Your task to perform on an android device: change keyboard looks Image 0: 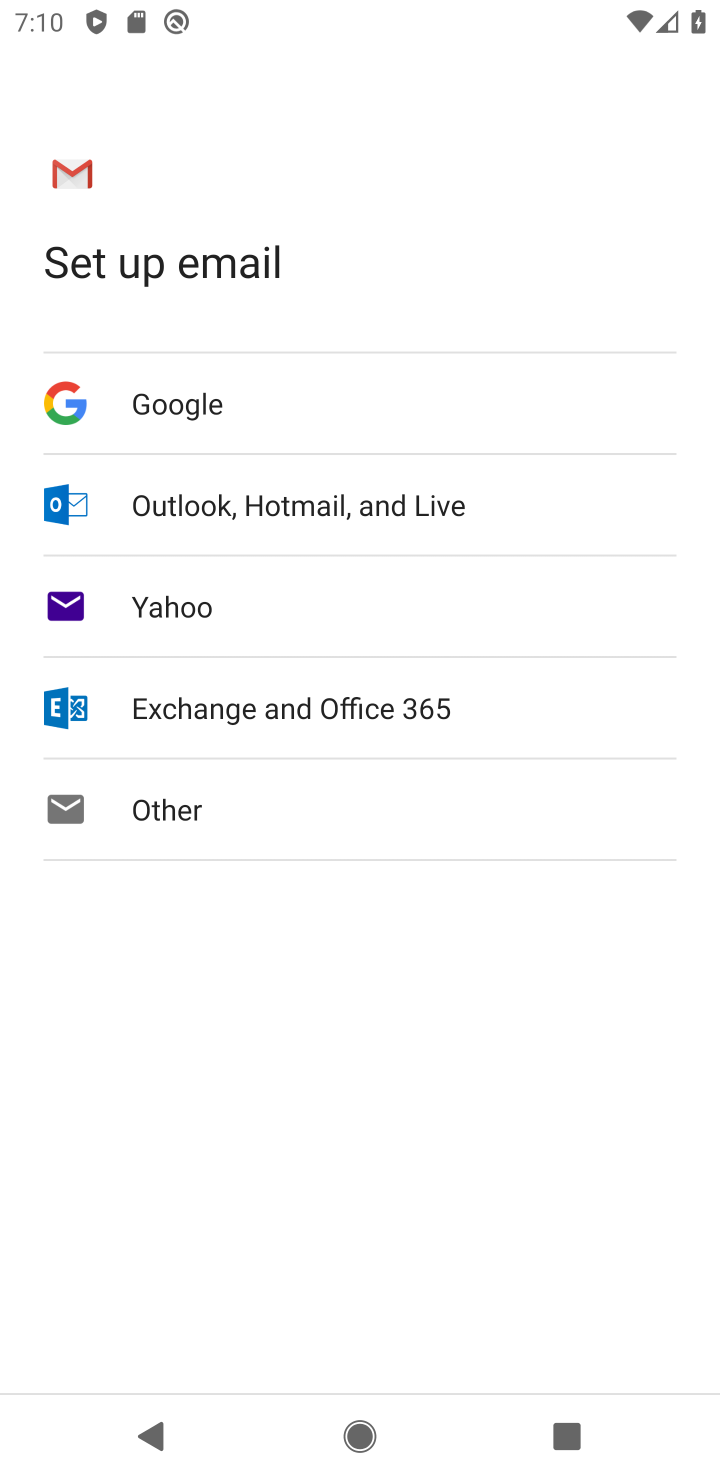
Step 0: press home button
Your task to perform on an android device: change keyboard looks Image 1: 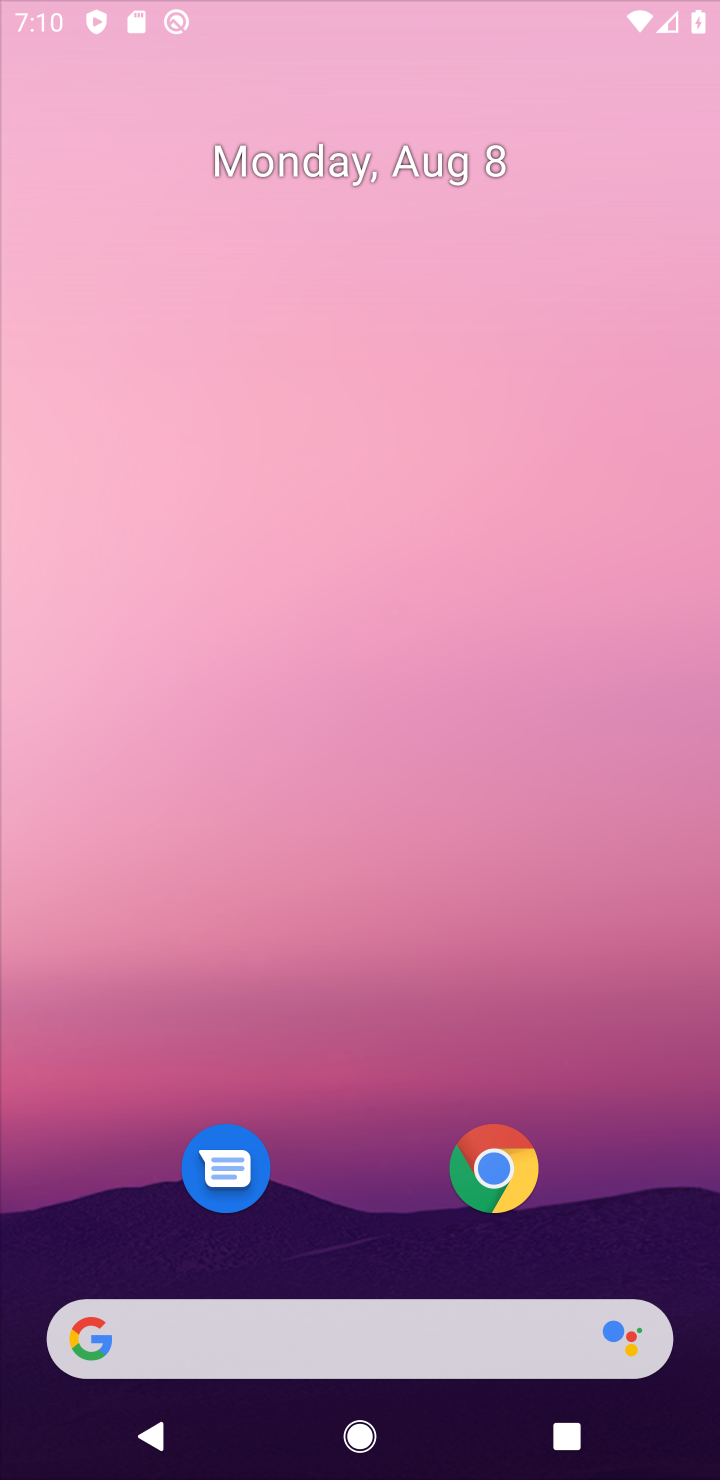
Step 1: drag from (653, 1277) to (414, 130)
Your task to perform on an android device: change keyboard looks Image 2: 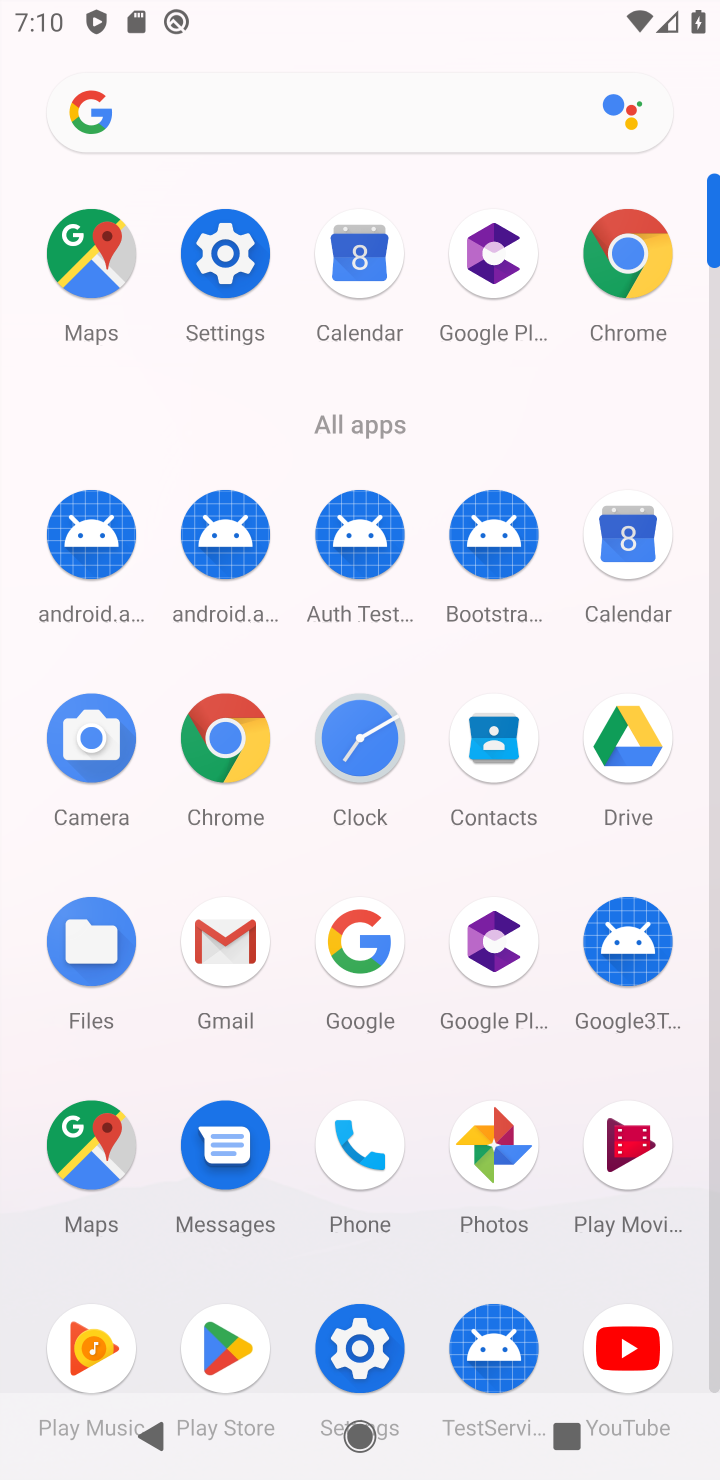
Step 2: click (361, 1330)
Your task to perform on an android device: change keyboard looks Image 3: 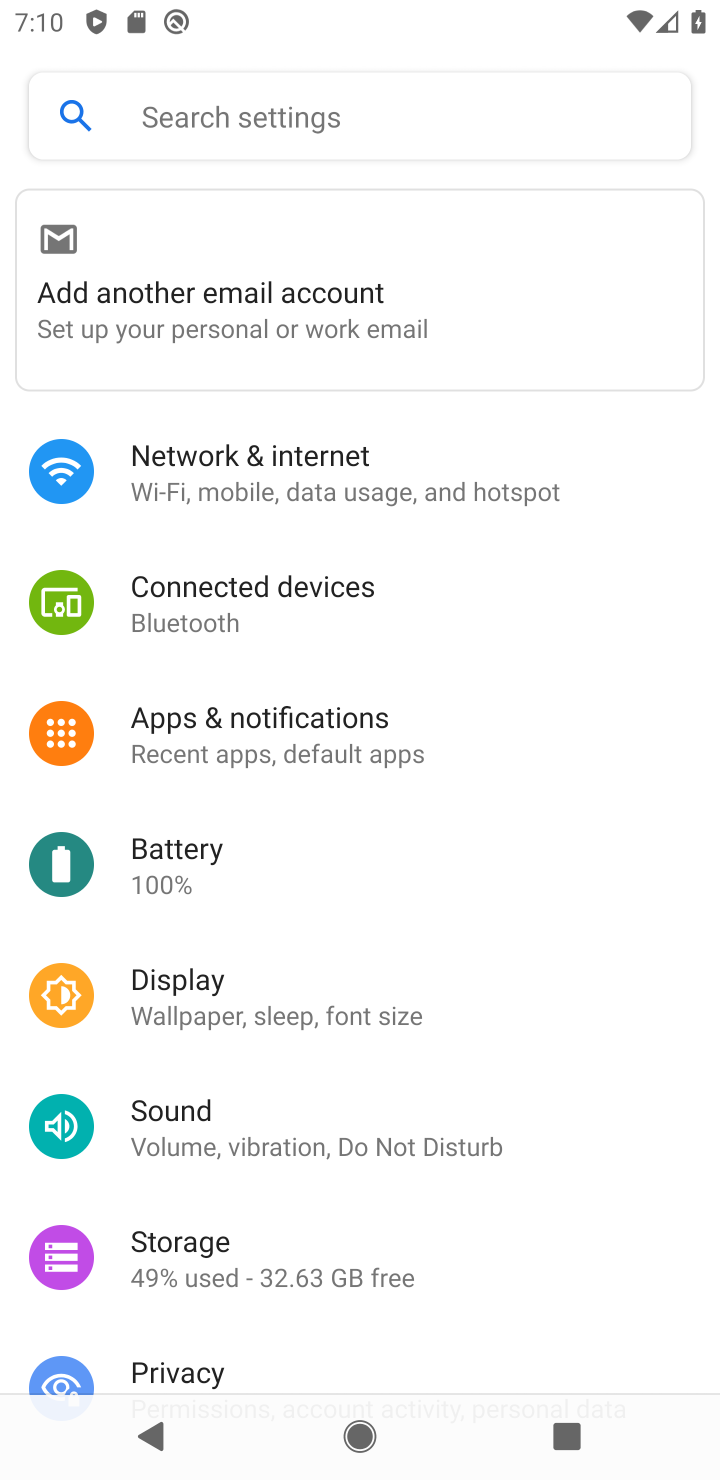
Step 3: drag from (363, 1270) to (386, 3)
Your task to perform on an android device: change keyboard looks Image 4: 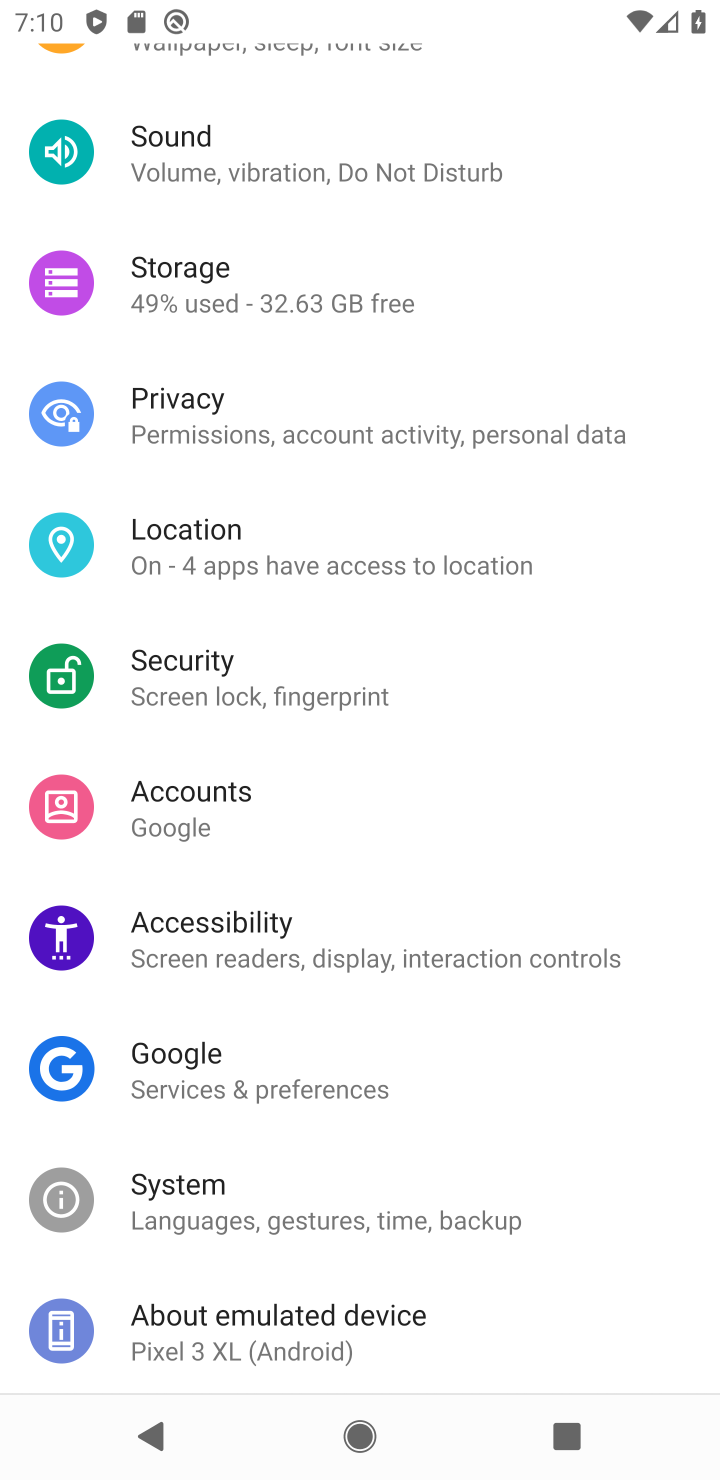
Step 4: click (207, 1214)
Your task to perform on an android device: change keyboard looks Image 5: 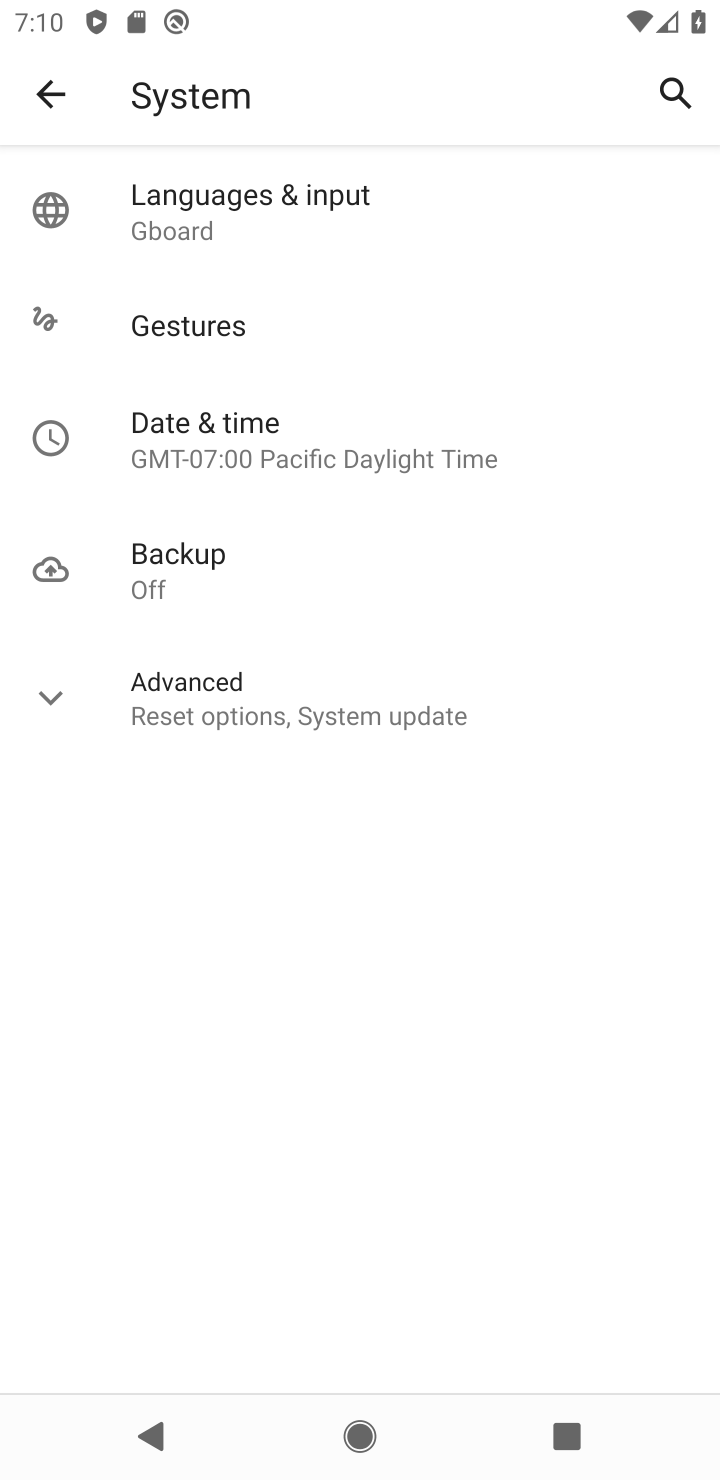
Step 5: click (224, 230)
Your task to perform on an android device: change keyboard looks Image 6: 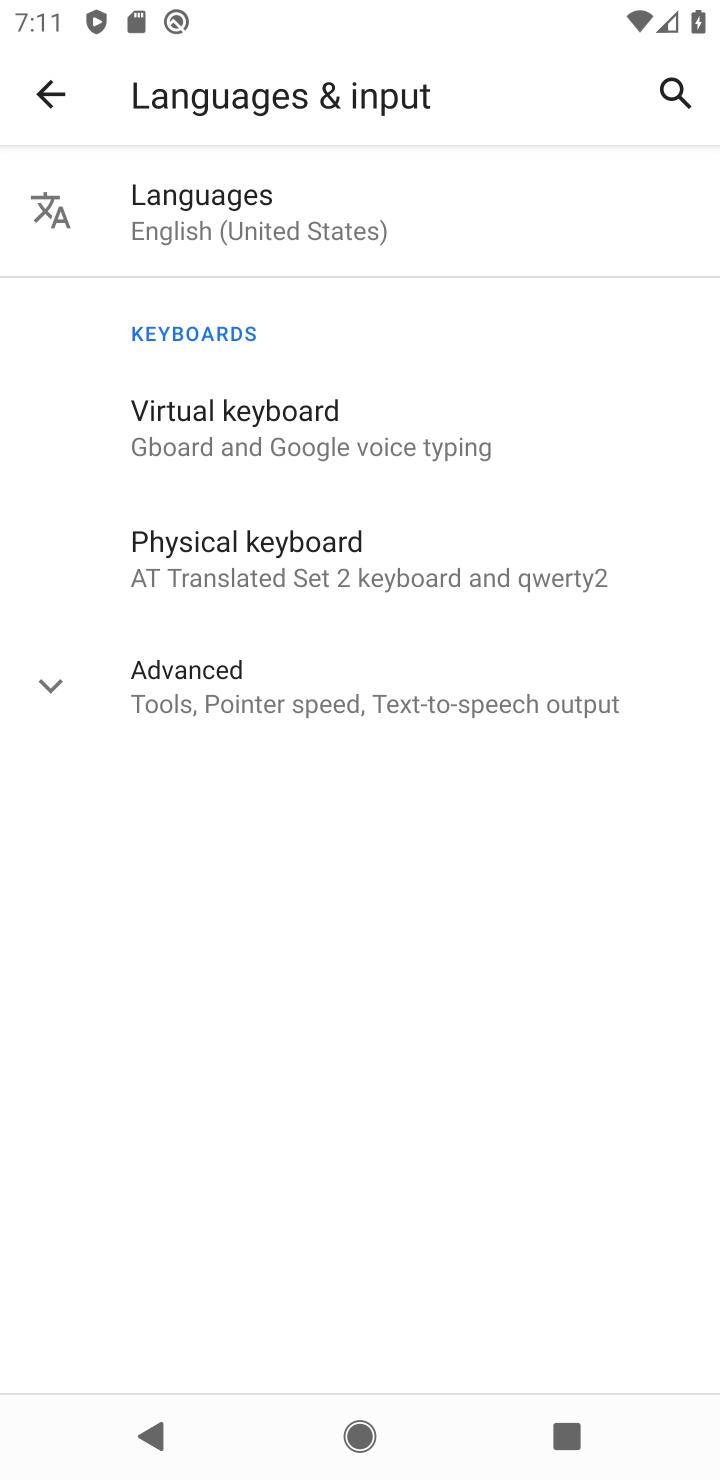
Step 6: drag from (201, 219) to (237, 435)
Your task to perform on an android device: change keyboard looks Image 7: 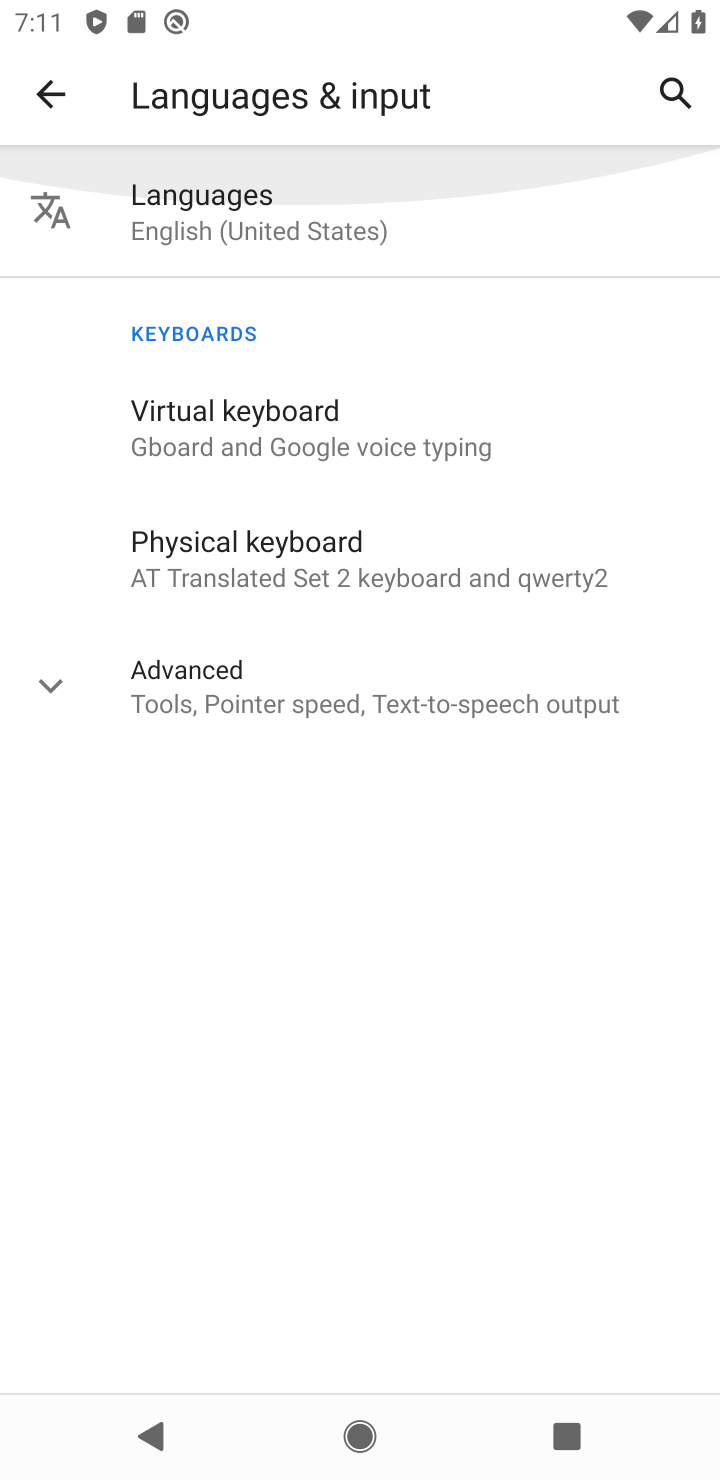
Step 7: click (237, 435)
Your task to perform on an android device: change keyboard looks Image 8: 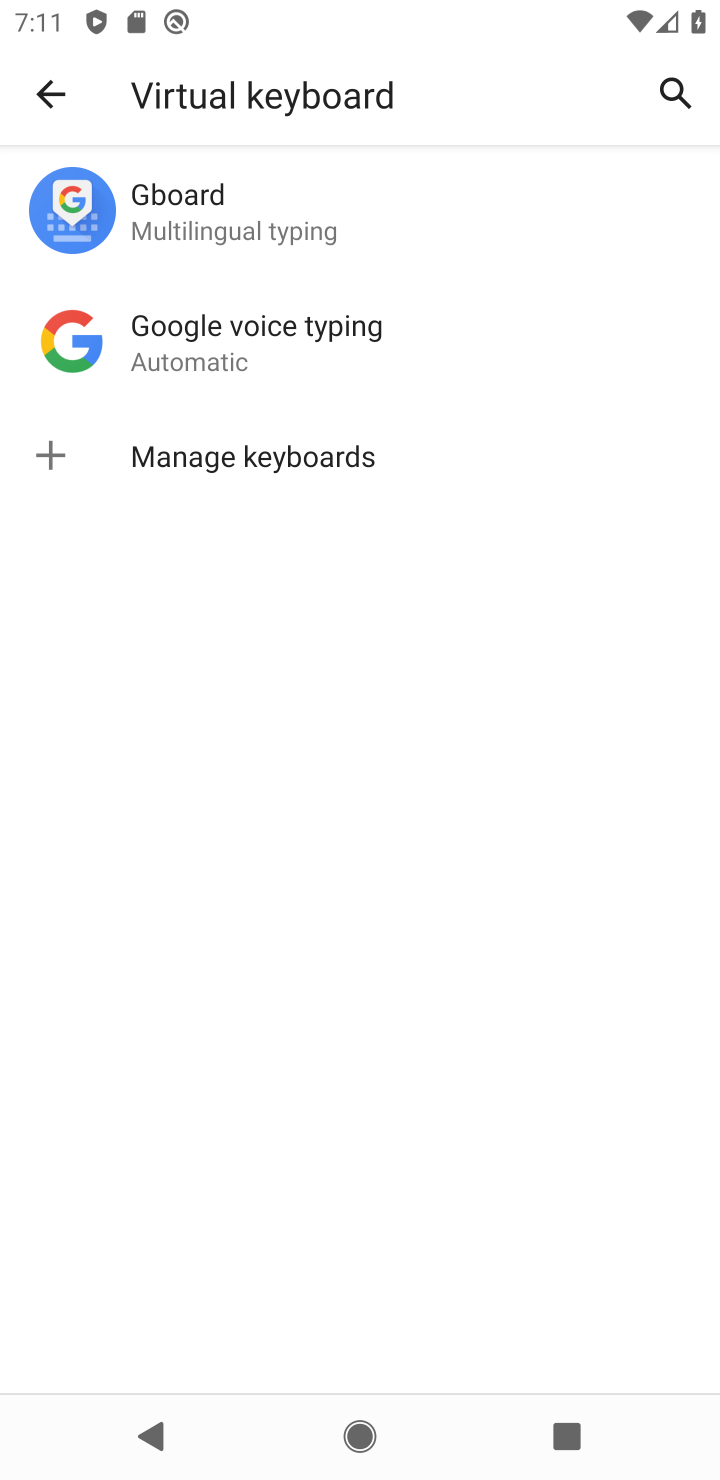
Step 8: click (191, 229)
Your task to perform on an android device: change keyboard looks Image 9: 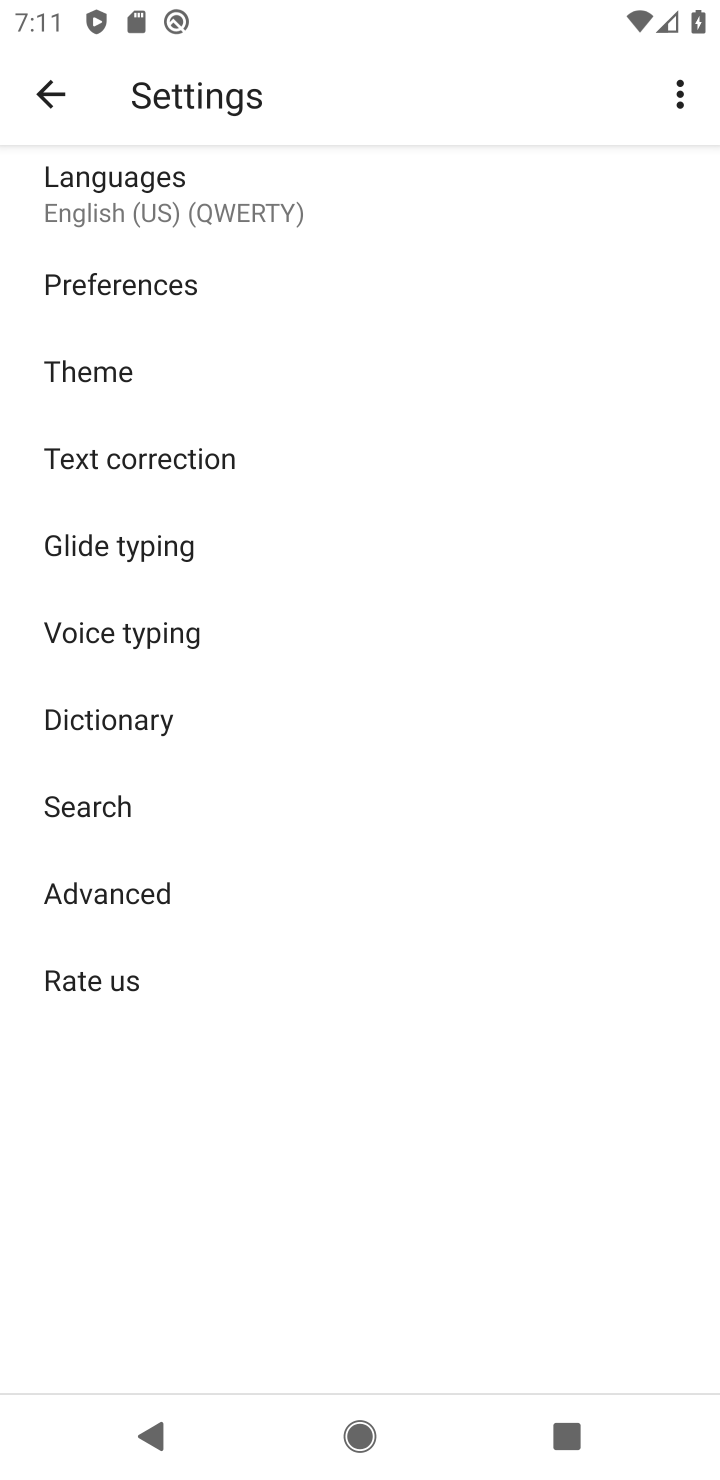
Step 9: click (129, 361)
Your task to perform on an android device: change keyboard looks Image 10: 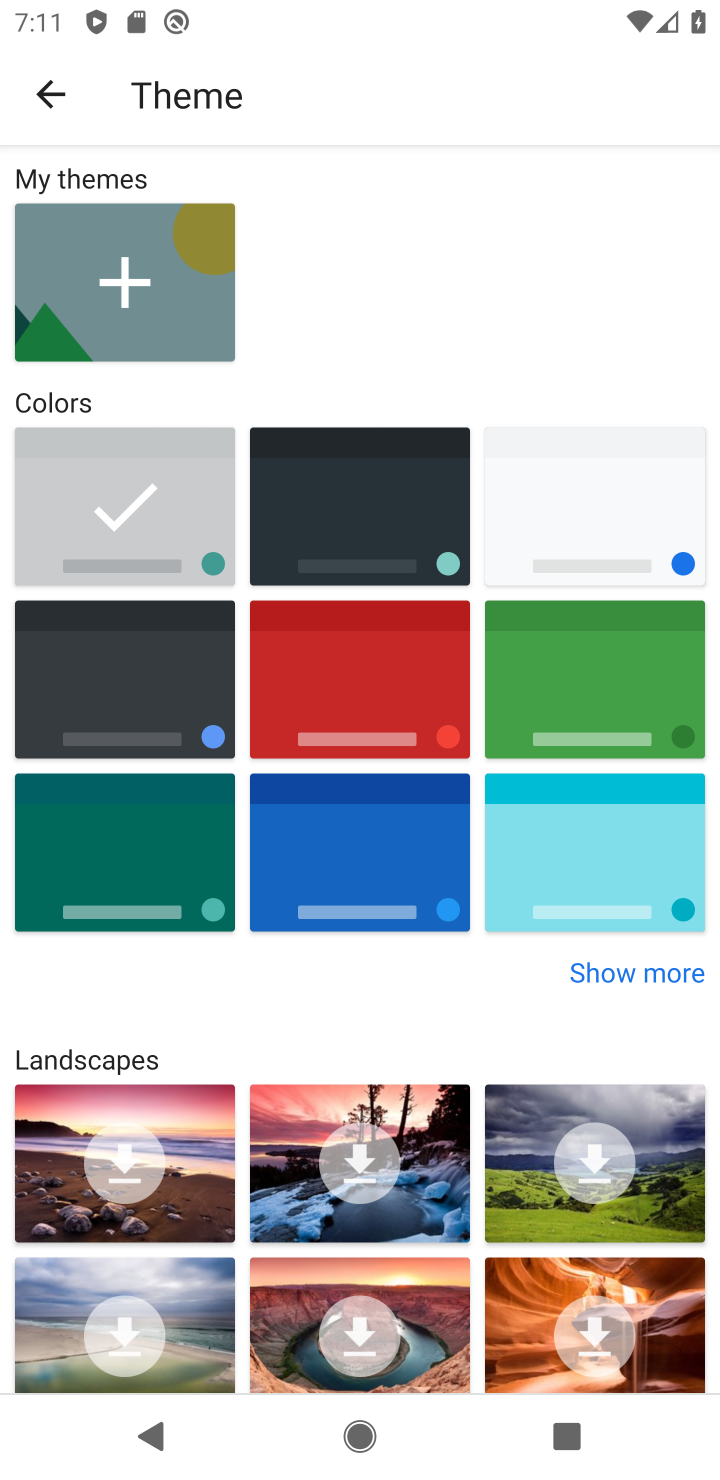
Step 10: click (372, 547)
Your task to perform on an android device: change keyboard looks Image 11: 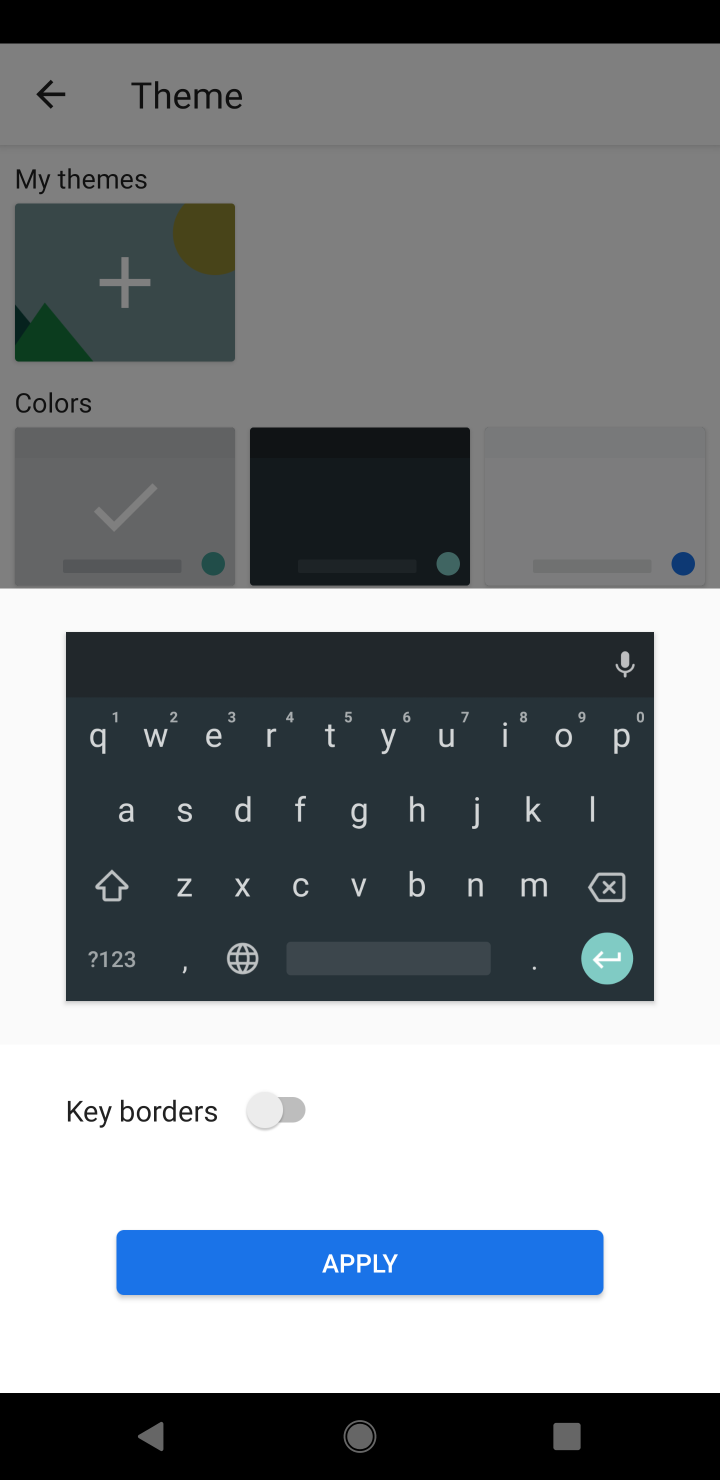
Step 11: click (356, 1268)
Your task to perform on an android device: change keyboard looks Image 12: 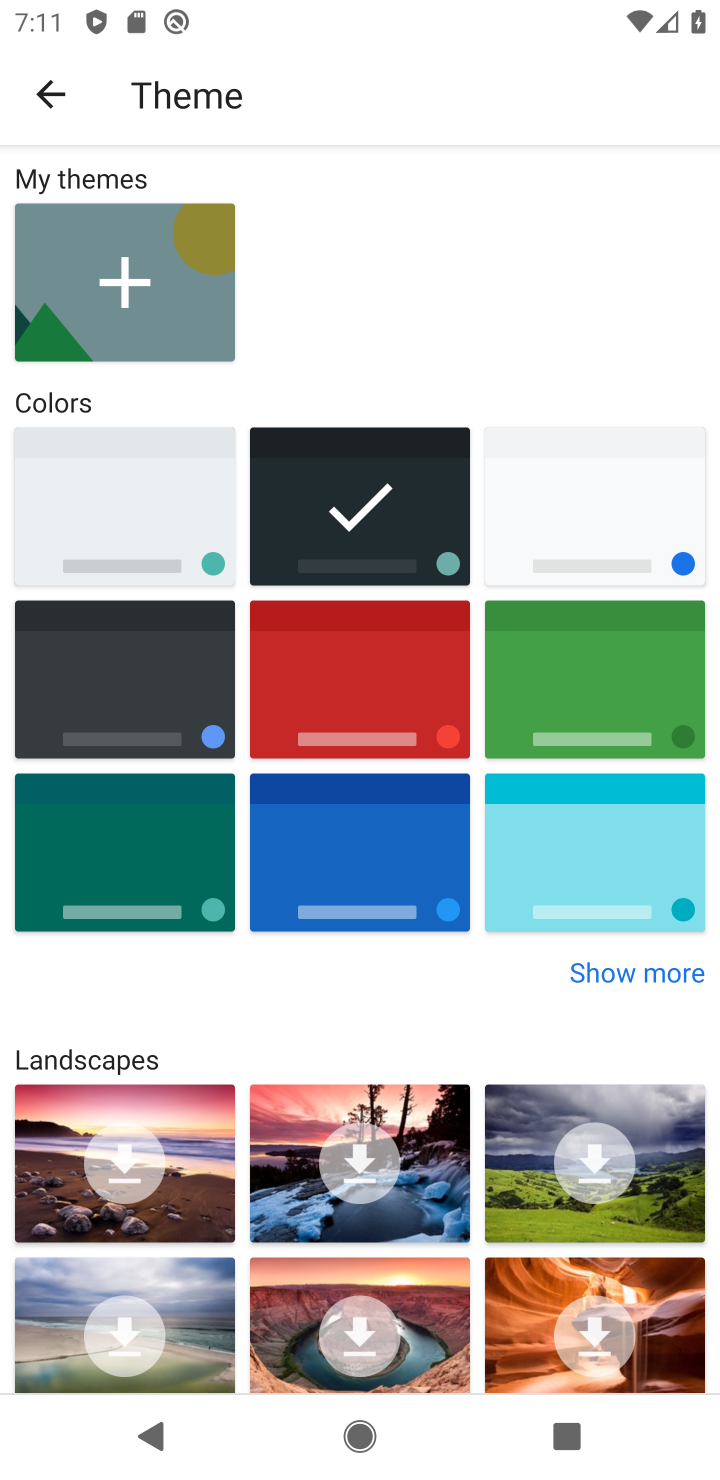
Step 12: task complete